Your task to perform on an android device: set the stopwatch Image 0: 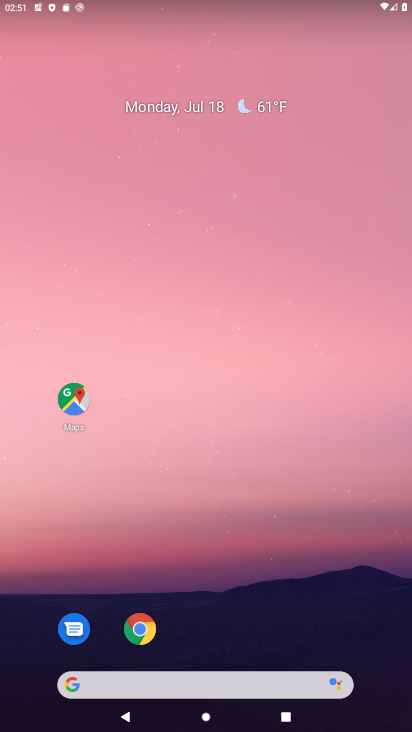
Step 0: drag from (269, 679) to (265, 83)
Your task to perform on an android device: set the stopwatch Image 1: 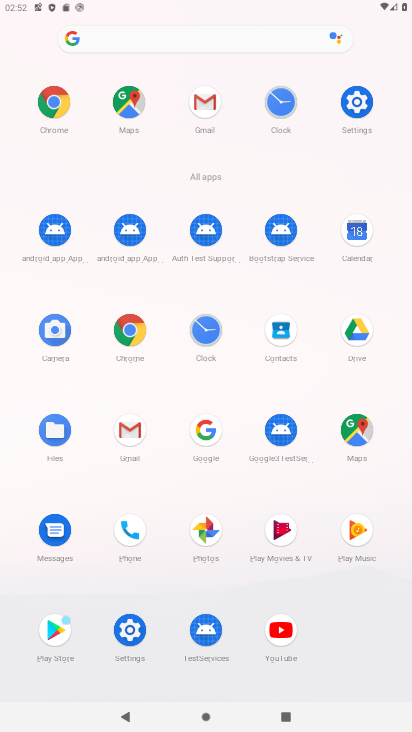
Step 1: click (282, 102)
Your task to perform on an android device: set the stopwatch Image 2: 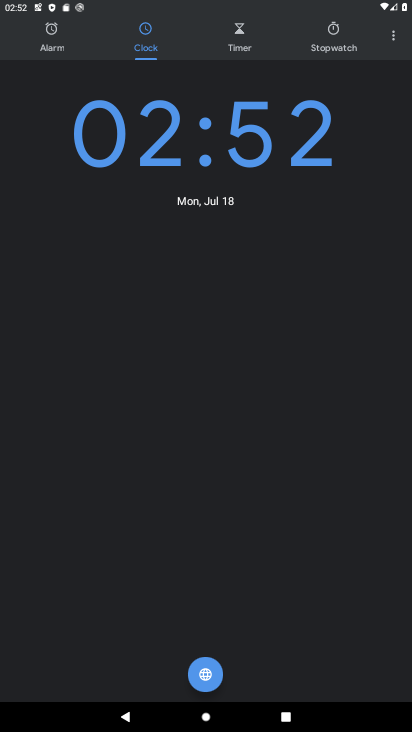
Step 2: click (343, 36)
Your task to perform on an android device: set the stopwatch Image 3: 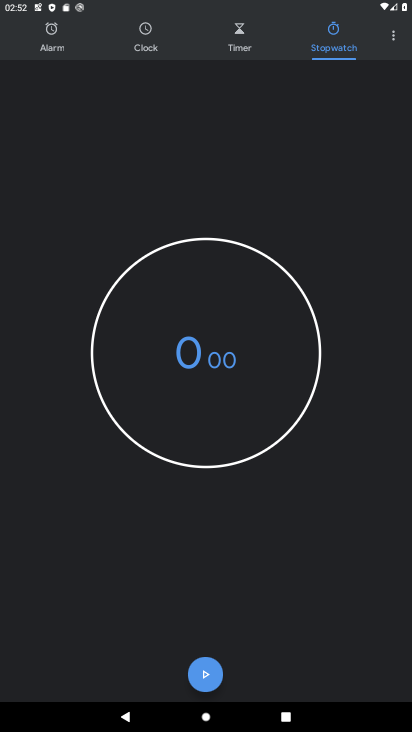
Step 3: click (210, 685)
Your task to perform on an android device: set the stopwatch Image 4: 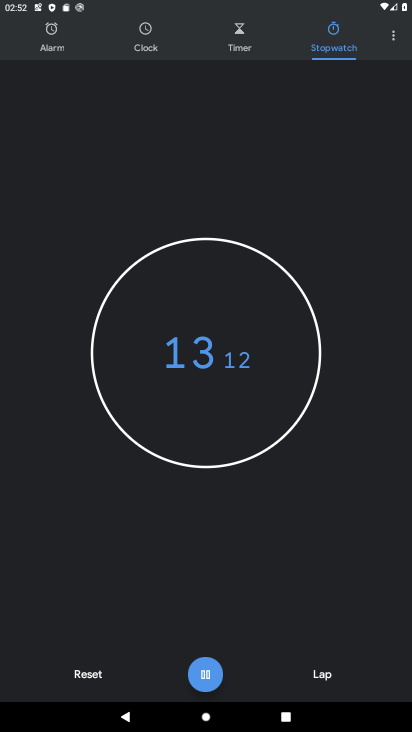
Step 4: click (213, 678)
Your task to perform on an android device: set the stopwatch Image 5: 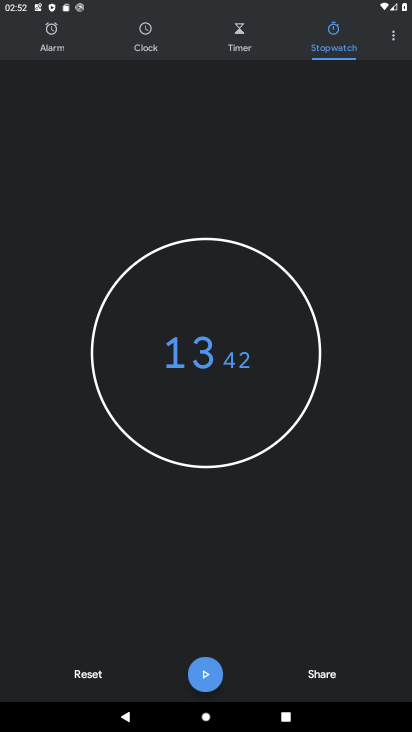
Step 5: task complete